Your task to perform on an android device: see sites visited before in the chrome app Image 0: 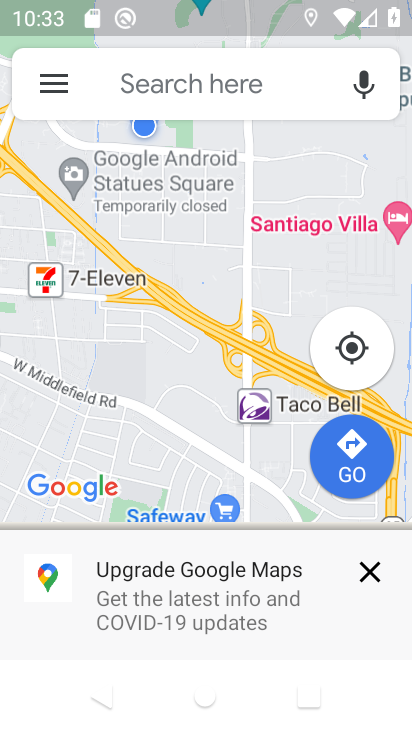
Step 0: press home button
Your task to perform on an android device: see sites visited before in the chrome app Image 1: 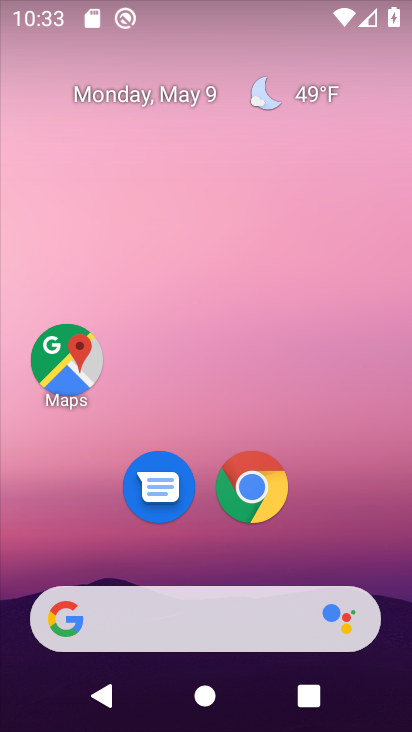
Step 1: click (265, 502)
Your task to perform on an android device: see sites visited before in the chrome app Image 2: 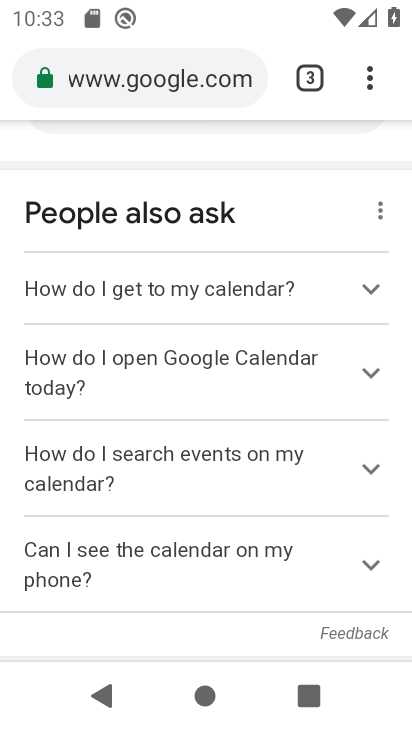
Step 2: task complete